Your task to perform on an android device: open the mobile data screen to see how much data has been used Image 0: 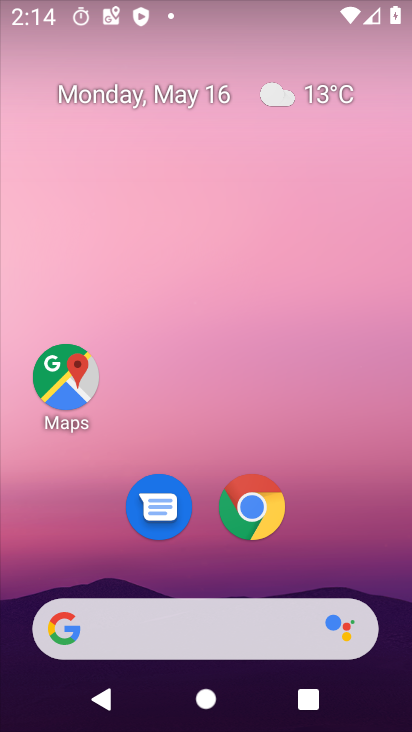
Step 0: drag from (372, 551) to (369, 144)
Your task to perform on an android device: open the mobile data screen to see how much data has been used Image 1: 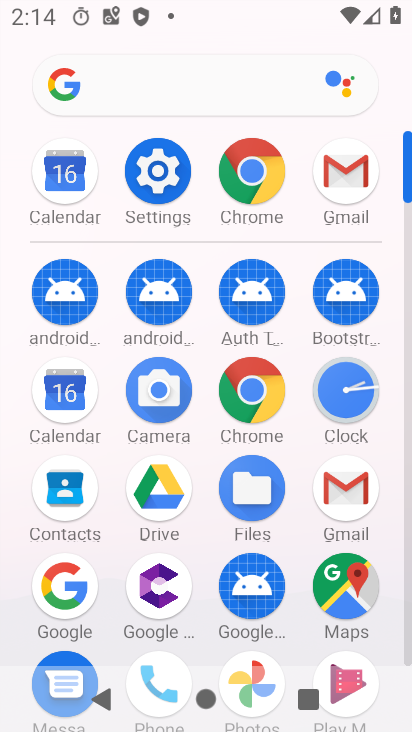
Step 1: click (170, 181)
Your task to perform on an android device: open the mobile data screen to see how much data has been used Image 2: 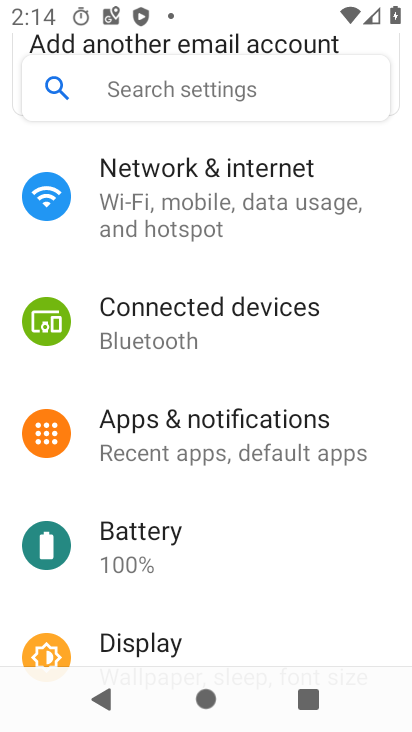
Step 2: drag from (362, 570) to (372, 399)
Your task to perform on an android device: open the mobile data screen to see how much data has been used Image 3: 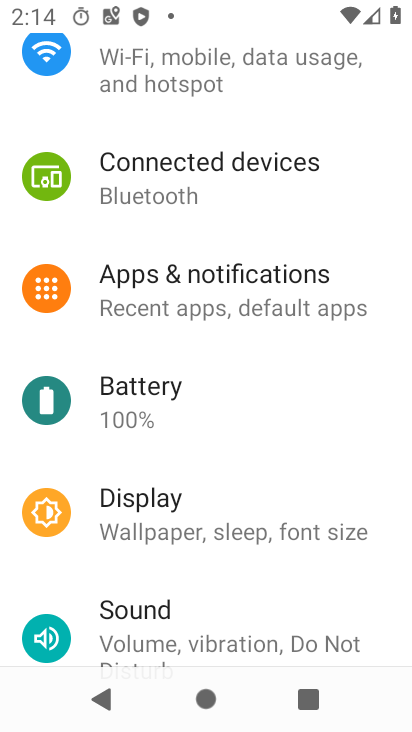
Step 3: drag from (377, 627) to (382, 445)
Your task to perform on an android device: open the mobile data screen to see how much data has been used Image 4: 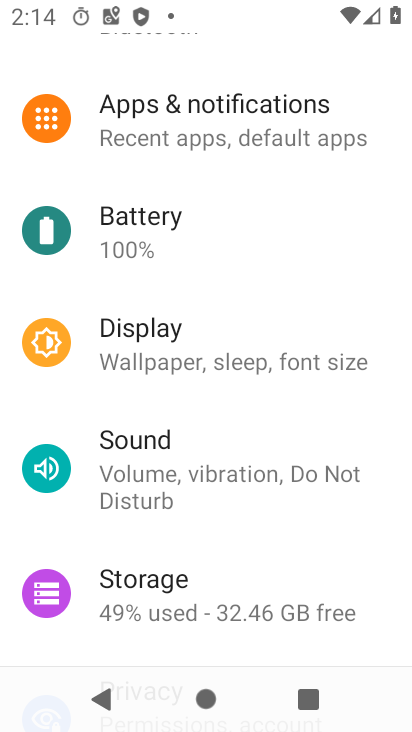
Step 4: drag from (362, 649) to (362, 464)
Your task to perform on an android device: open the mobile data screen to see how much data has been used Image 5: 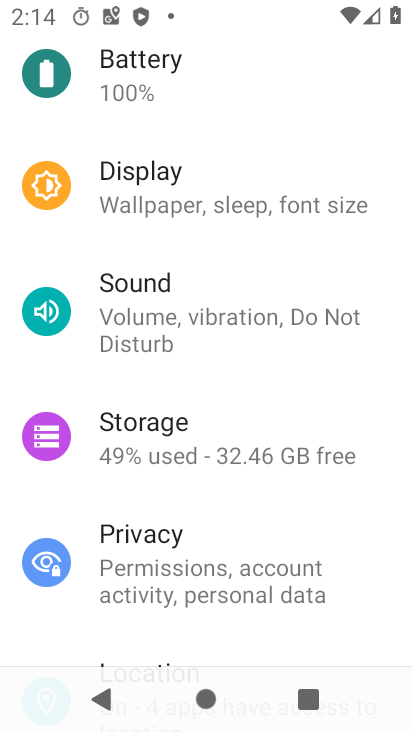
Step 5: drag from (352, 627) to (357, 469)
Your task to perform on an android device: open the mobile data screen to see how much data has been used Image 6: 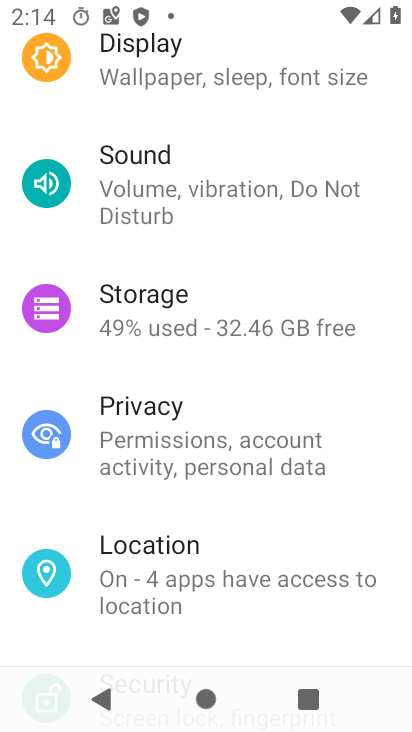
Step 6: drag from (337, 632) to (358, 472)
Your task to perform on an android device: open the mobile data screen to see how much data has been used Image 7: 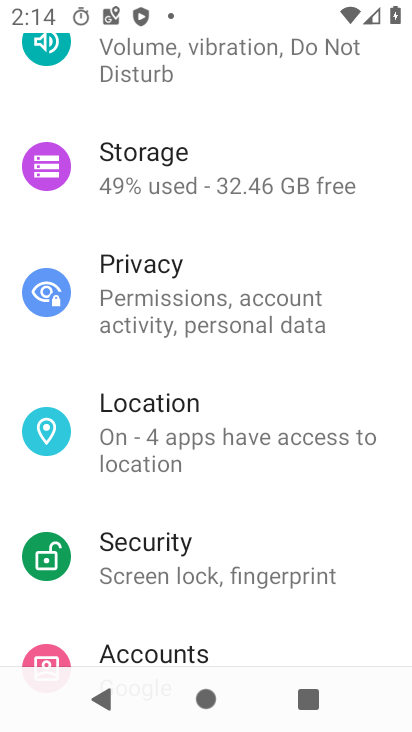
Step 7: drag from (360, 639) to (371, 443)
Your task to perform on an android device: open the mobile data screen to see how much data has been used Image 8: 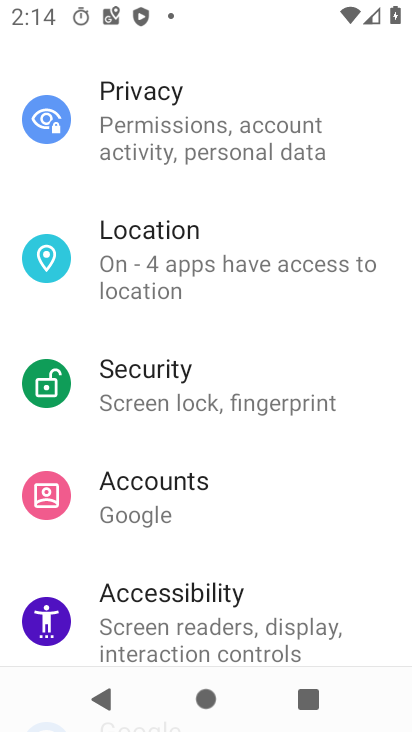
Step 8: drag from (342, 651) to (351, 467)
Your task to perform on an android device: open the mobile data screen to see how much data has been used Image 9: 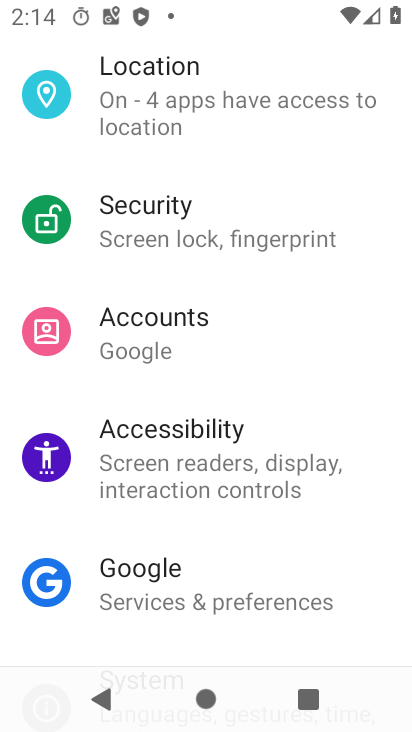
Step 9: drag from (355, 644) to (361, 496)
Your task to perform on an android device: open the mobile data screen to see how much data has been used Image 10: 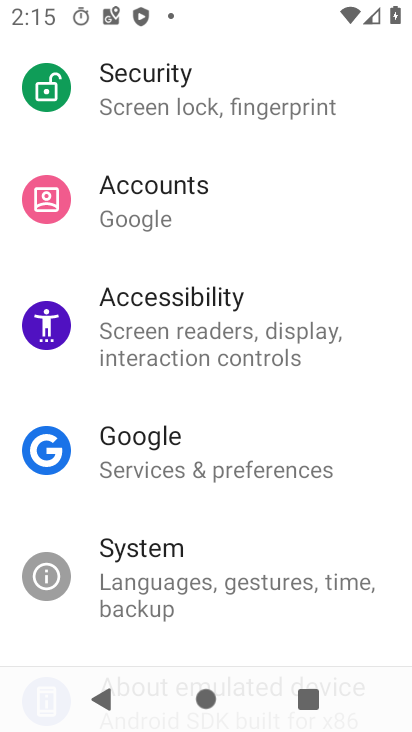
Step 10: drag from (364, 284) to (370, 383)
Your task to perform on an android device: open the mobile data screen to see how much data has been used Image 11: 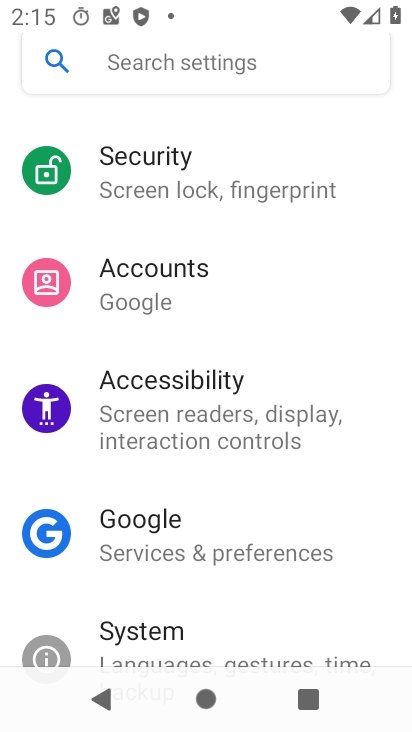
Step 11: drag from (372, 229) to (375, 397)
Your task to perform on an android device: open the mobile data screen to see how much data has been used Image 12: 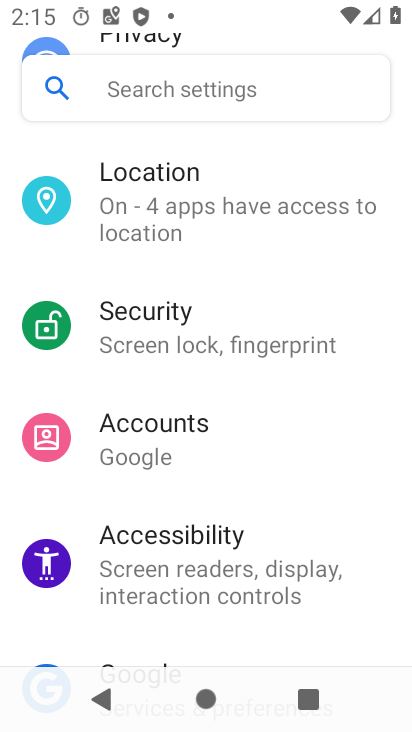
Step 12: drag from (368, 233) to (371, 384)
Your task to perform on an android device: open the mobile data screen to see how much data has been used Image 13: 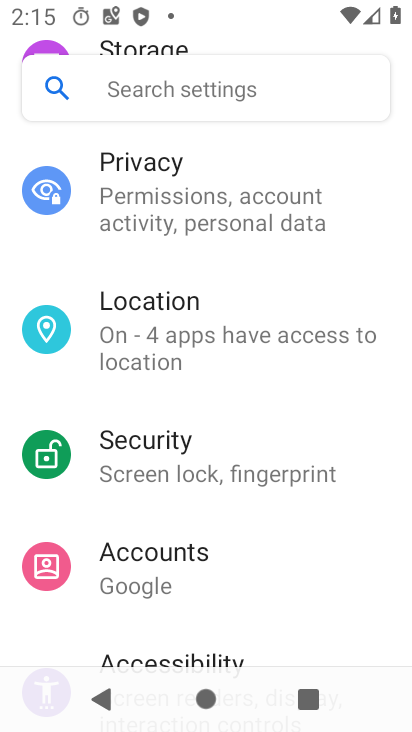
Step 13: drag from (355, 201) to (354, 390)
Your task to perform on an android device: open the mobile data screen to see how much data has been used Image 14: 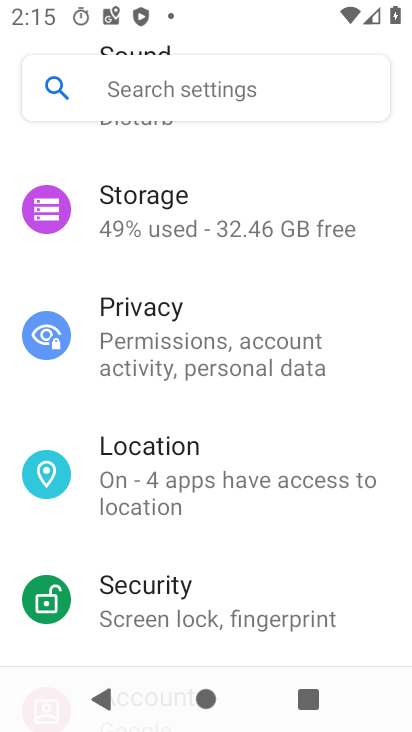
Step 14: drag from (373, 189) to (376, 335)
Your task to perform on an android device: open the mobile data screen to see how much data has been used Image 15: 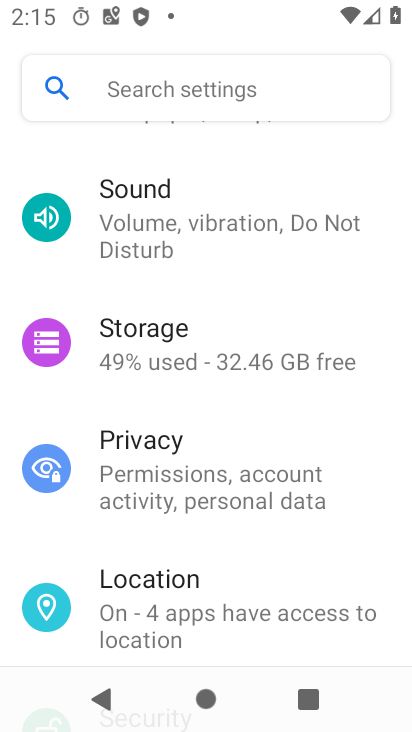
Step 15: drag from (377, 198) to (372, 367)
Your task to perform on an android device: open the mobile data screen to see how much data has been used Image 16: 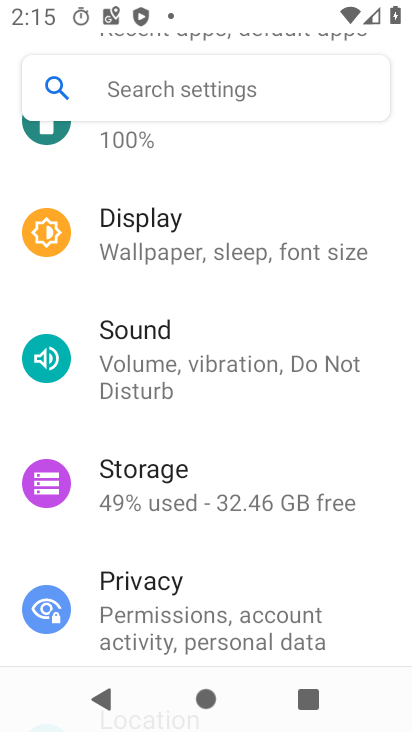
Step 16: drag from (360, 174) to (355, 384)
Your task to perform on an android device: open the mobile data screen to see how much data has been used Image 17: 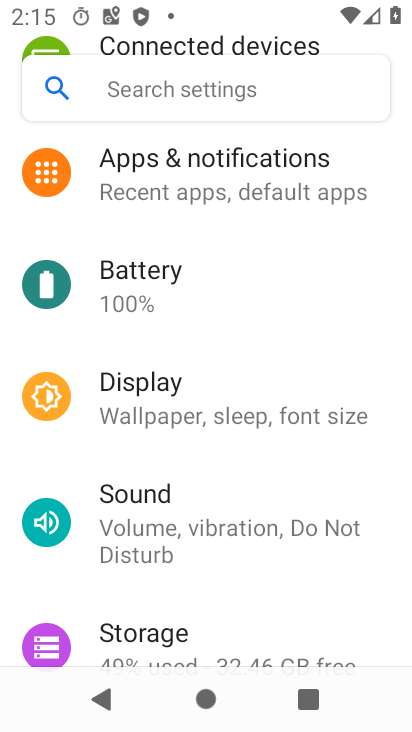
Step 17: drag from (368, 147) to (365, 381)
Your task to perform on an android device: open the mobile data screen to see how much data has been used Image 18: 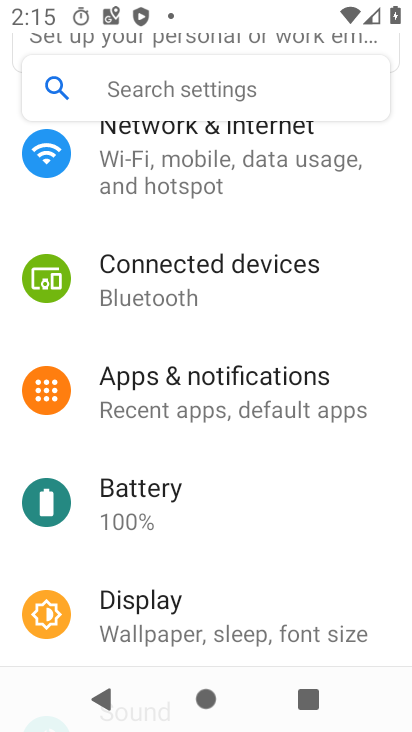
Step 18: drag from (370, 139) to (364, 358)
Your task to perform on an android device: open the mobile data screen to see how much data has been used Image 19: 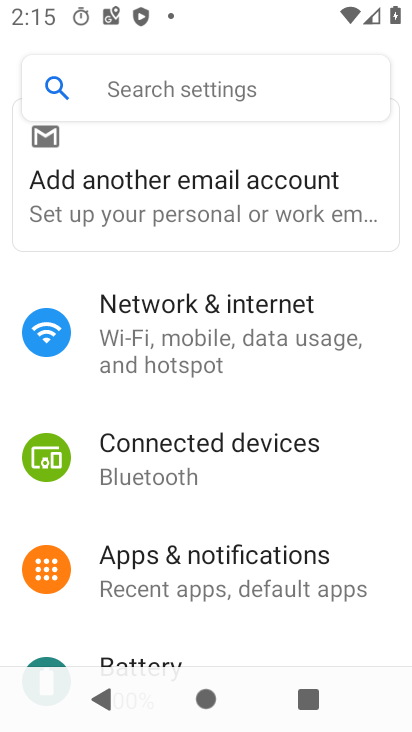
Step 19: click (299, 359)
Your task to perform on an android device: open the mobile data screen to see how much data has been used Image 20: 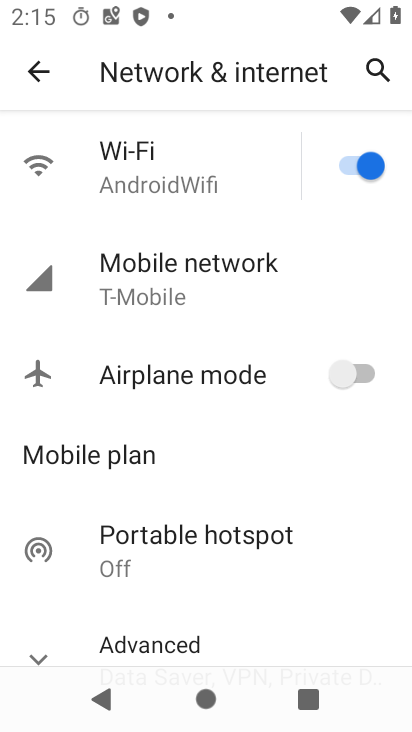
Step 20: click (186, 273)
Your task to perform on an android device: open the mobile data screen to see how much data has been used Image 21: 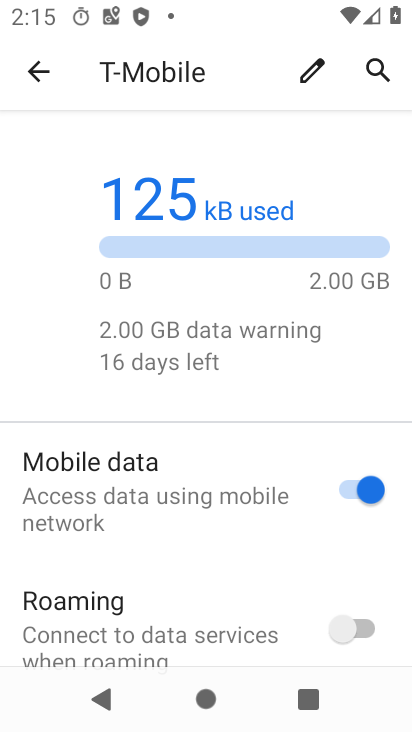
Step 21: drag from (207, 564) to (200, 401)
Your task to perform on an android device: open the mobile data screen to see how much data has been used Image 22: 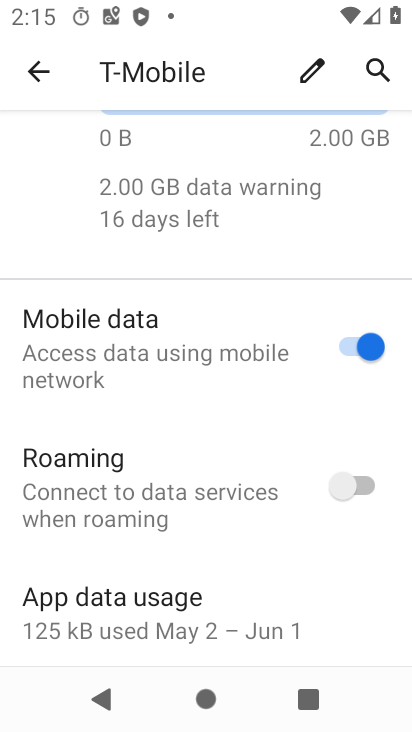
Step 22: click (198, 613)
Your task to perform on an android device: open the mobile data screen to see how much data has been used Image 23: 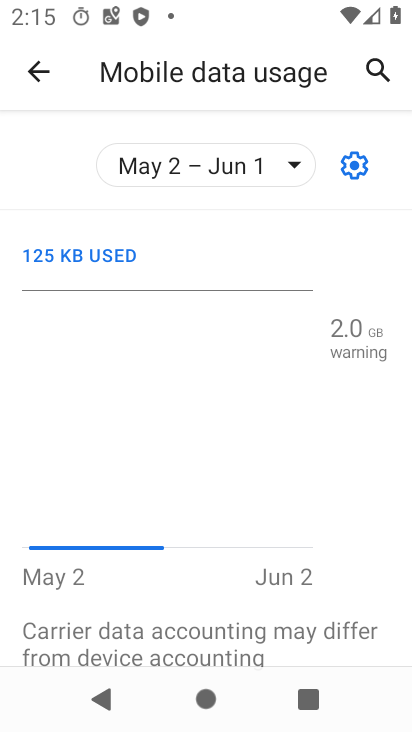
Step 23: task complete